Your task to perform on an android device: When is my next appointment? Image 0: 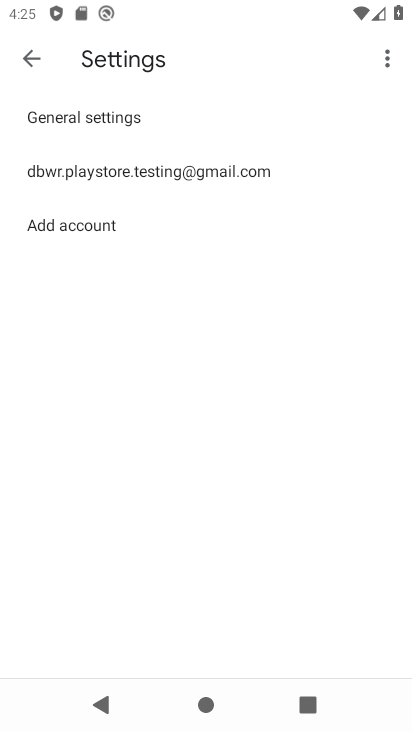
Step 0: press home button
Your task to perform on an android device: When is my next appointment? Image 1: 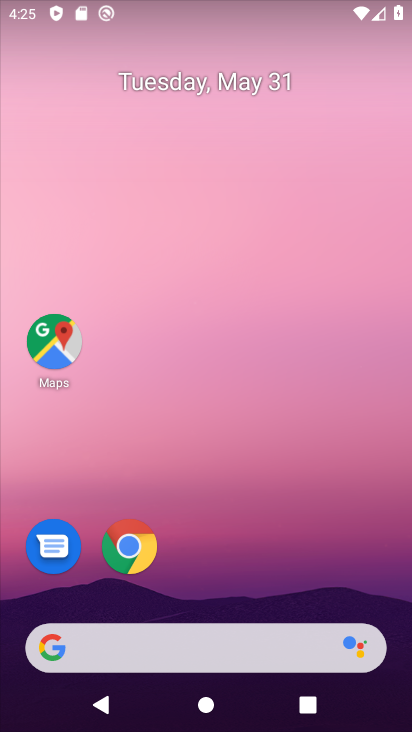
Step 1: drag from (235, 605) to (238, 18)
Your task to perform on an android device: When is my next appointment? Image 2: 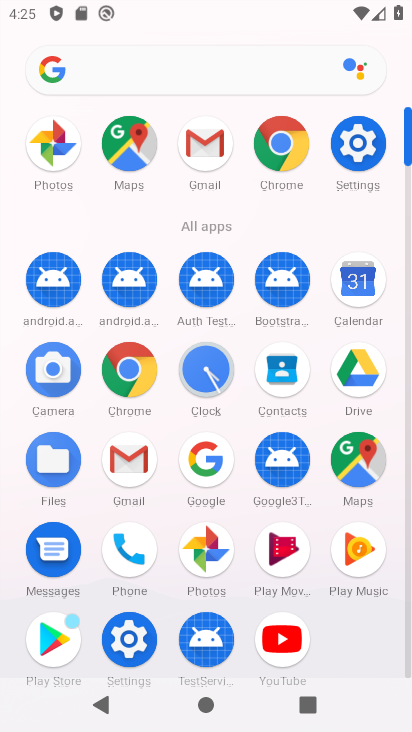
Step 2: click (359, 276)
Your task to perform on an android device: When is my next appointment? Image 3: 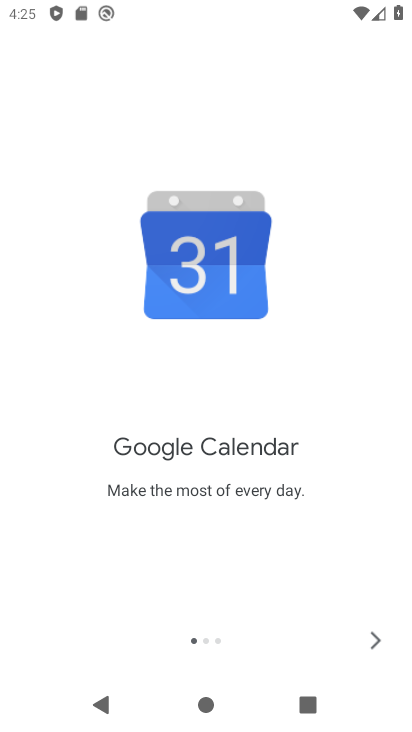
Step 3: click (372, 630)
Your task to perform on an android device: When is my next appointment? Image 4: 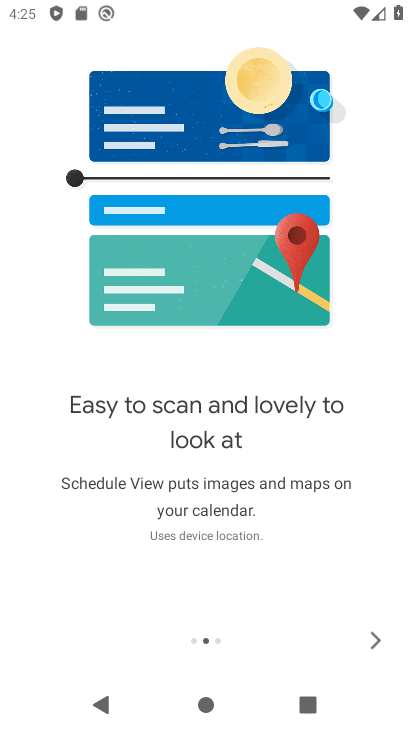
Step 4: click (372, 630)
Your task to perform on an android device: When is my next appointment? Image 5: 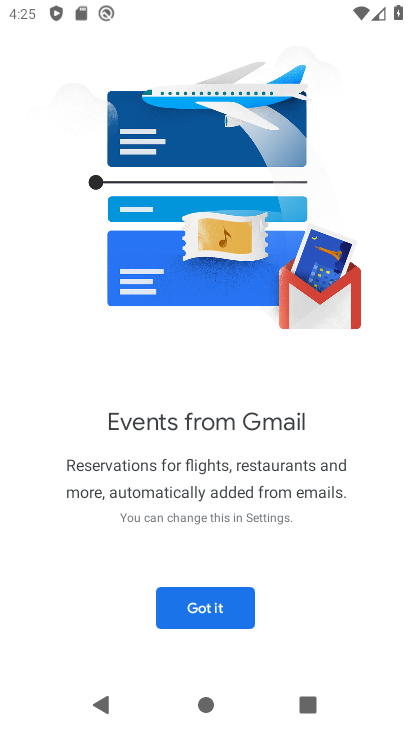
Step 5: click (218, 613)
Your task to perform on an android device: When is my next appointment? Image 6: 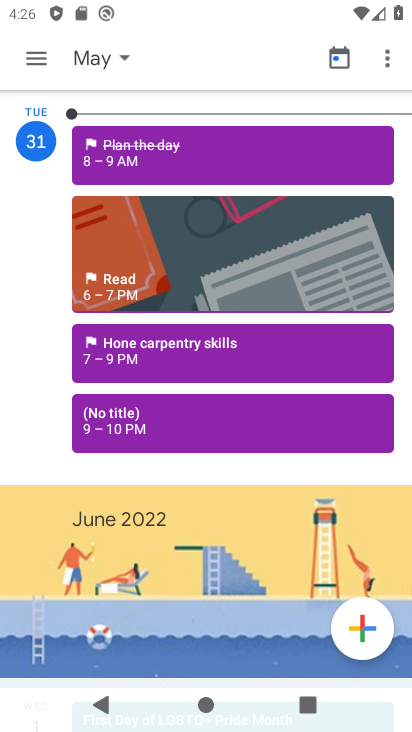
Step 6: task complete